Your task to perform on an android device: Open settings Image 0: 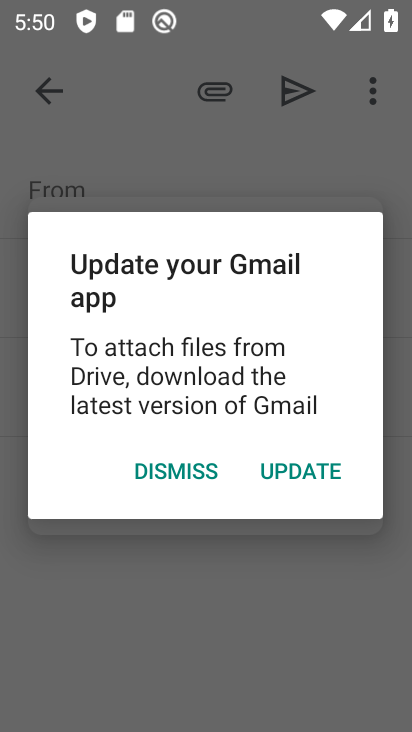
Step 0: press home button
Your task to perform on an android device: Open settings Image 1: 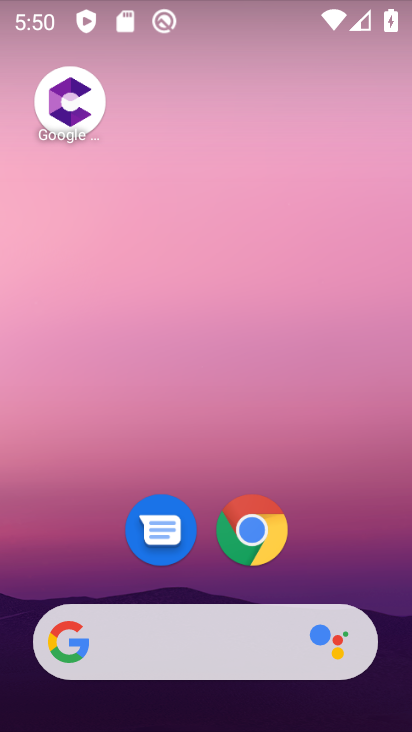
Step 1: drag from (209, 590) to (247, 112)
Your task to perform on an android device: Open settings Image 2: 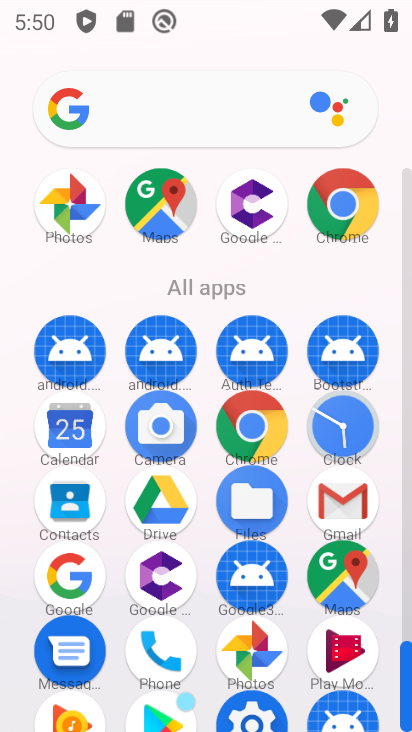
Step 2: click (249, 712)
Your task to perform on an android device: Open settings Image 3: 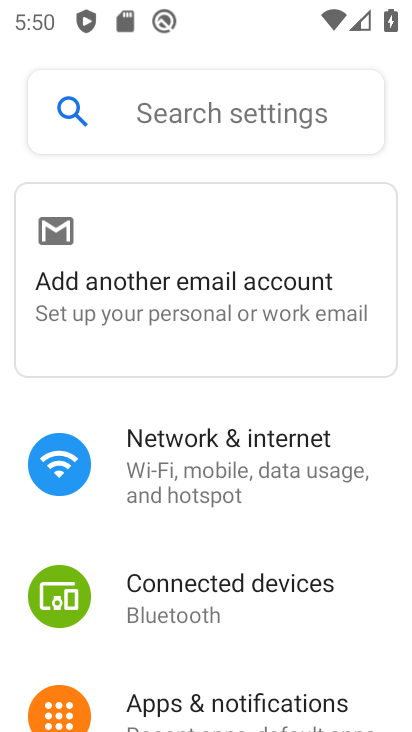
Step 3: task complete